Your task to perform on an android device: Toggle the flashlight Image 0: 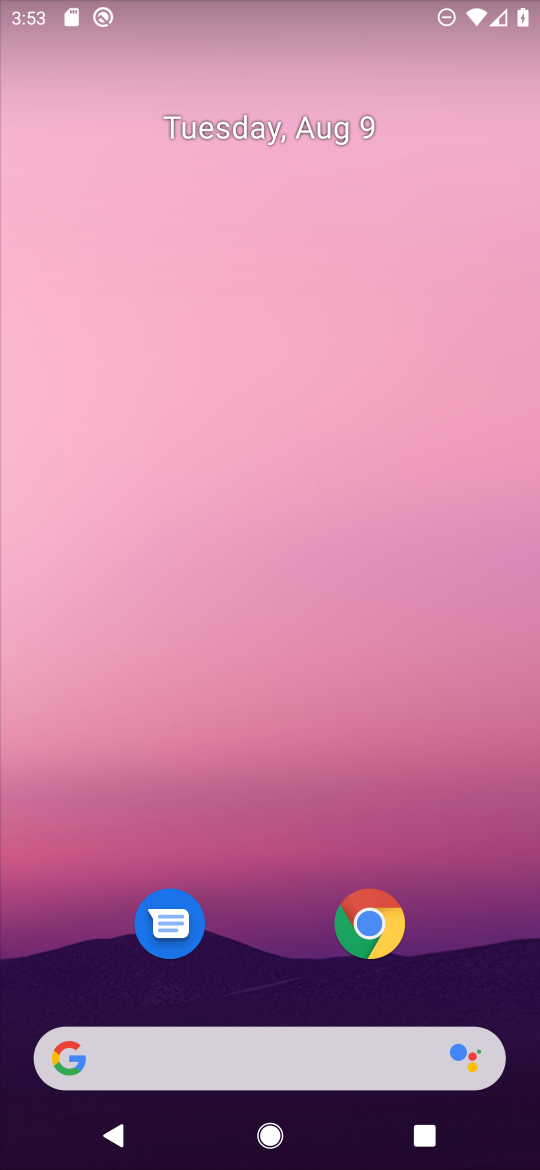
Step 0: drag from (339, 961) to (323, 60)
Your task to perform on an android device: Toggle the flashlight Image 1: 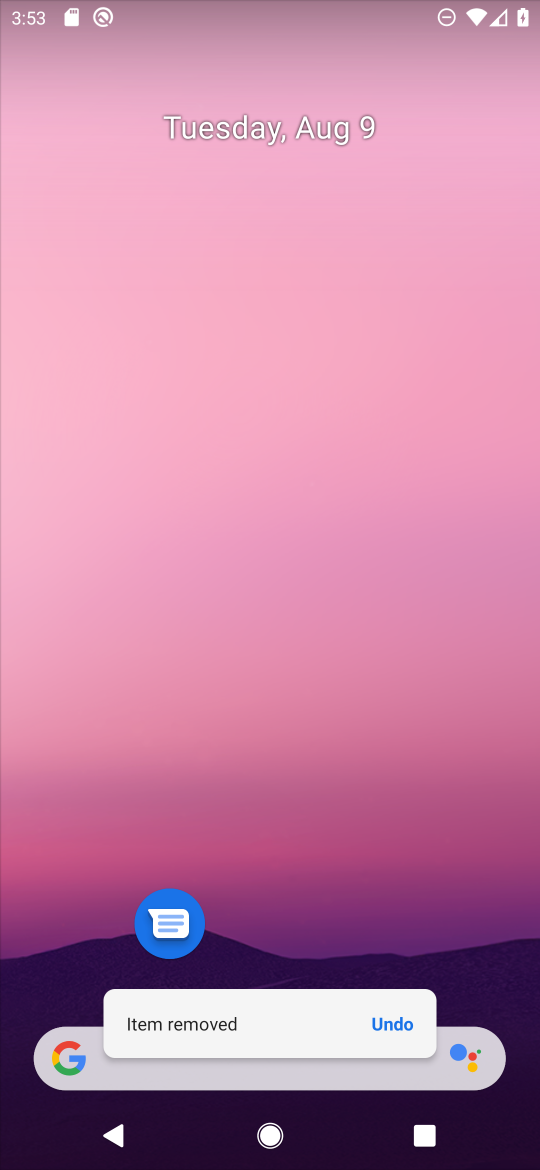
Step 1: drag from (347, 458) to (401, 0)
Your task to perform on an android device: Toggle the flashlight Image 2: 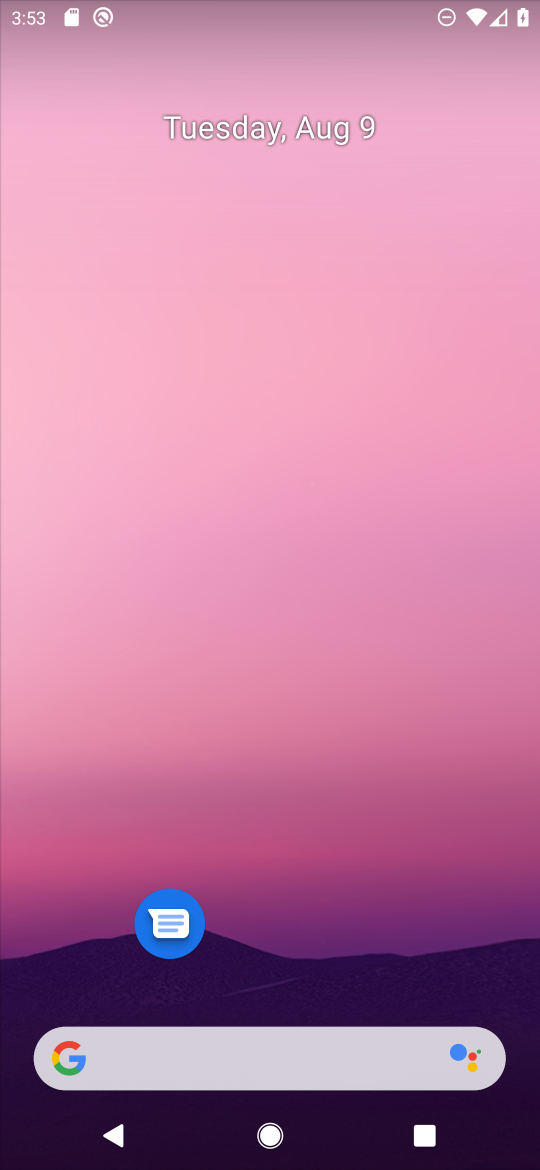
Step 2: drag from (317, 953) to (396, 110)
Your task to perform on an android device: Toggle the flashlight Image 3: 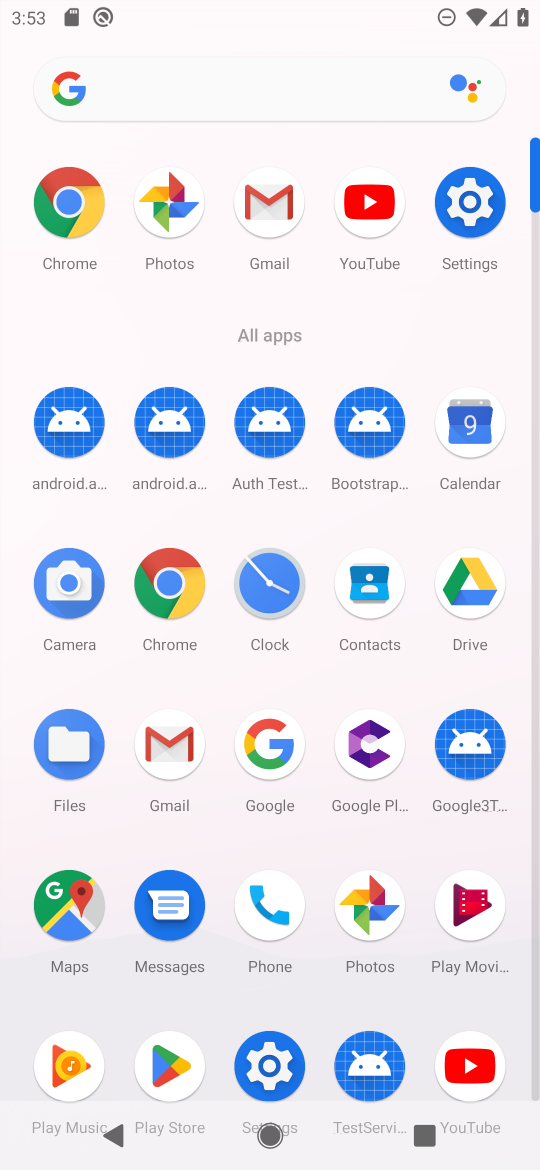
Step 3: click (459, 204)
Your task to perform on an android device: Toggle the flashlight Image 4: 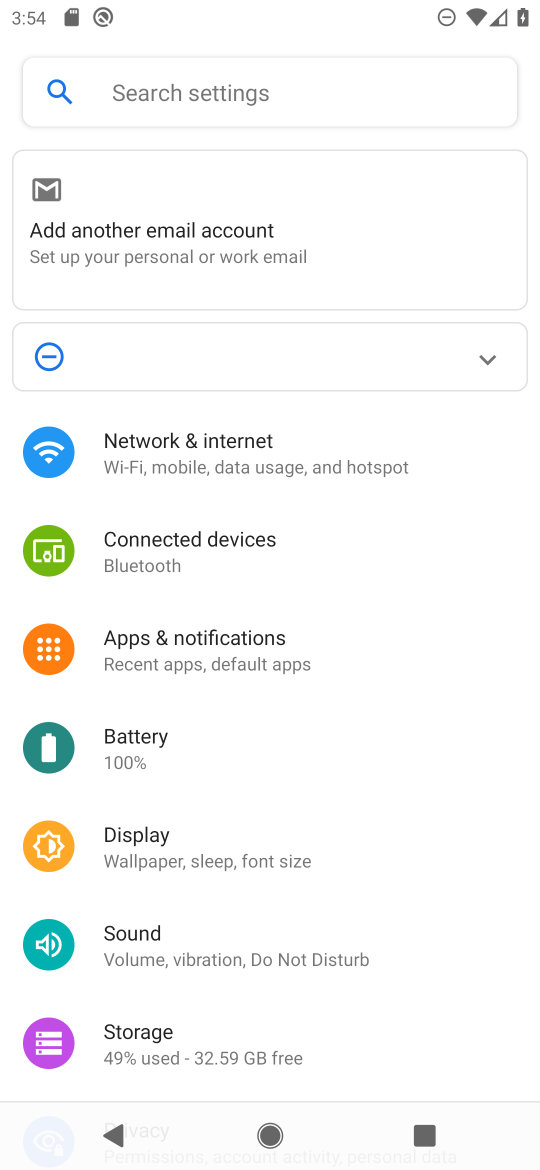
Step 4: click (226, 88)
Your task to perform on an android device: Toggle the flashlight Image 5: 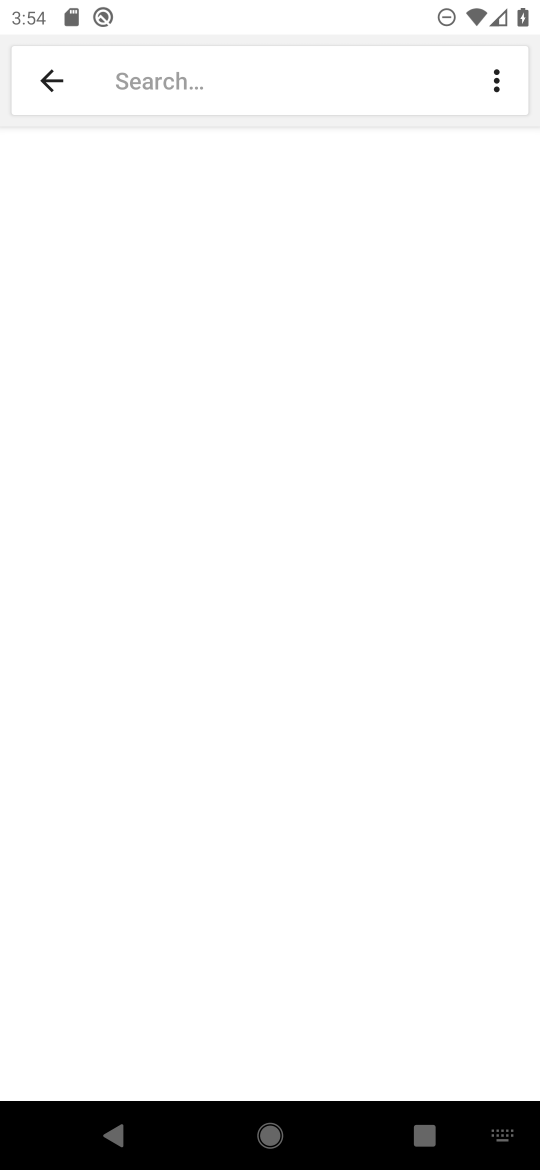
Step 5: type "flashlight"
Your task to perform on an android device: Toggle the flashlight Image 6: 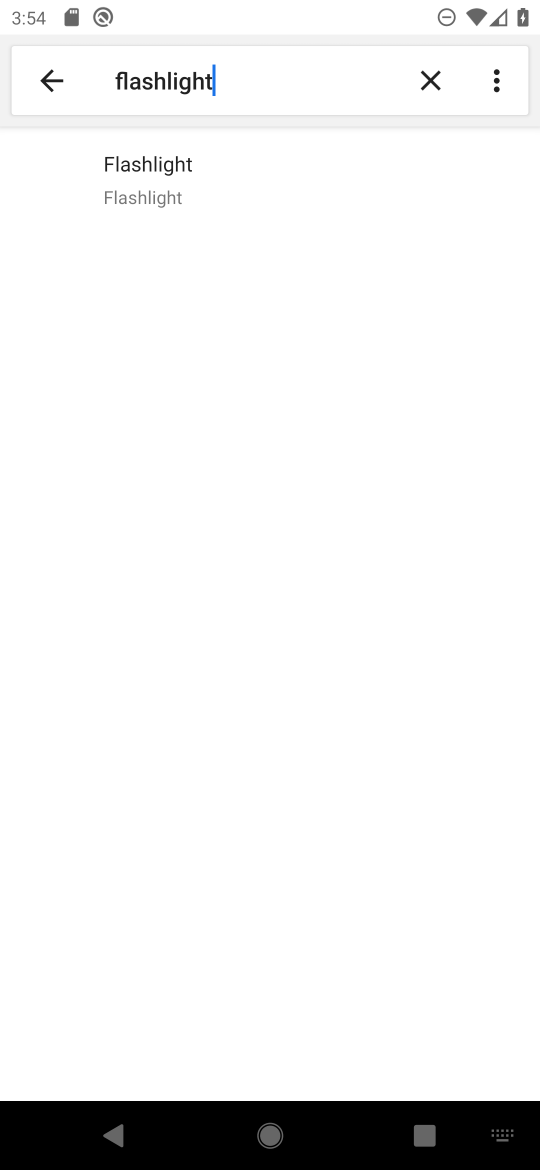
Step 6: click (175, 180)
Your task to perform on an android device: Toggle the flashlight Image 7: 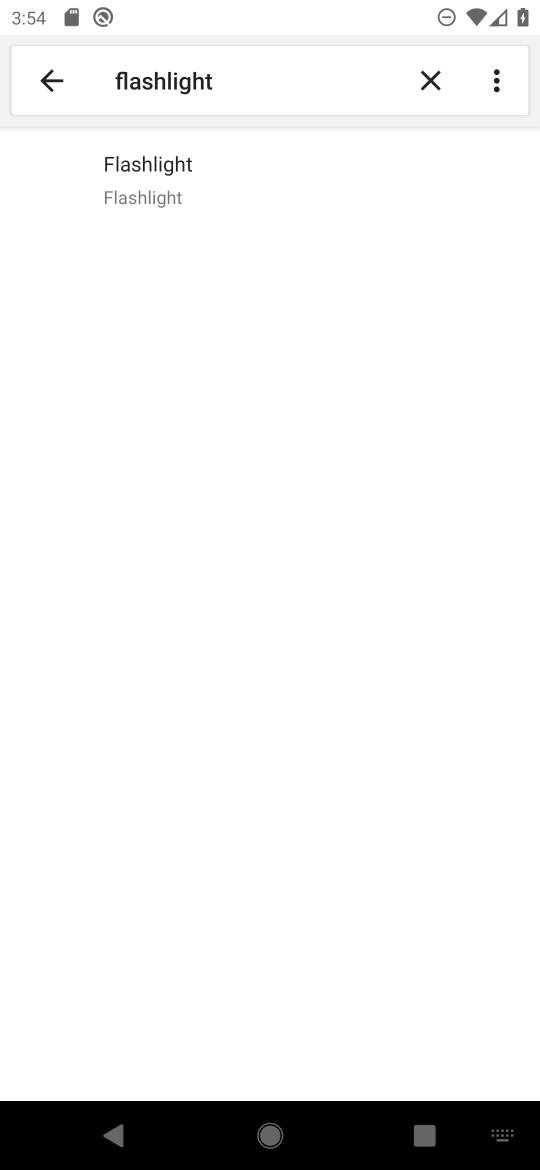
Step 7: click (165, 171)
Your task to perform on an android device: Toggle the flashlight Image 8: 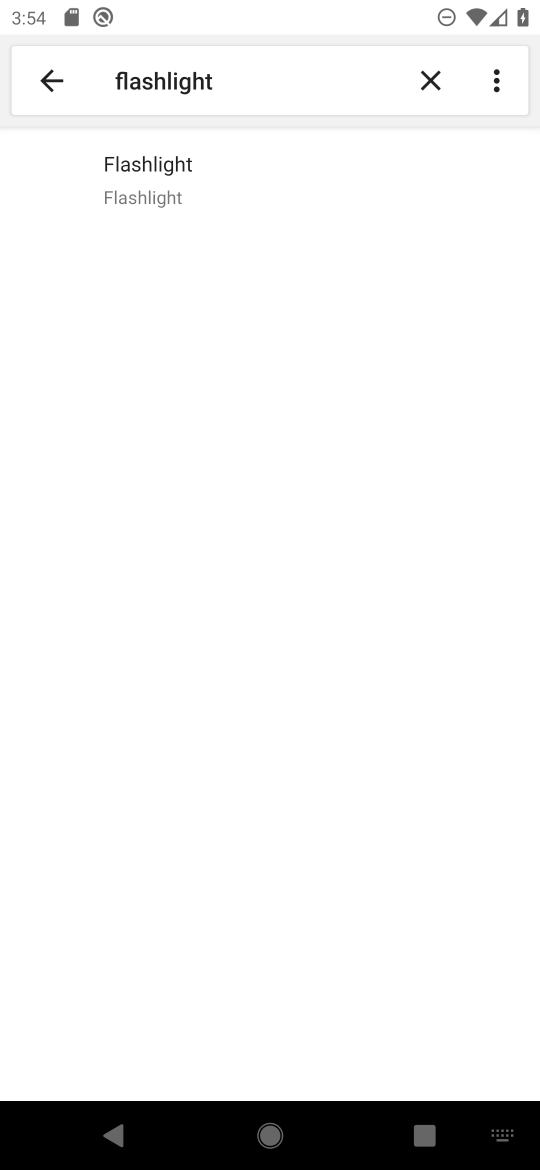
Step 8: task complete